Your task to perform on an android device: Open calendar and show me the fourth week of next month Image 0: 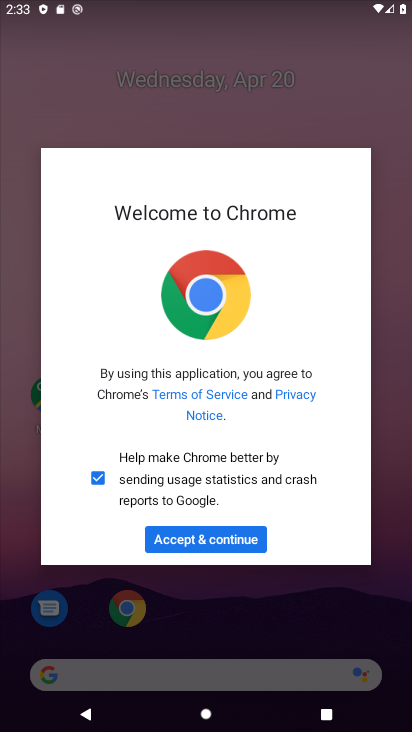
Step 0: press home button
Your task to perform on an android device: Open calendar and show me the fourth week of next month Image 1: 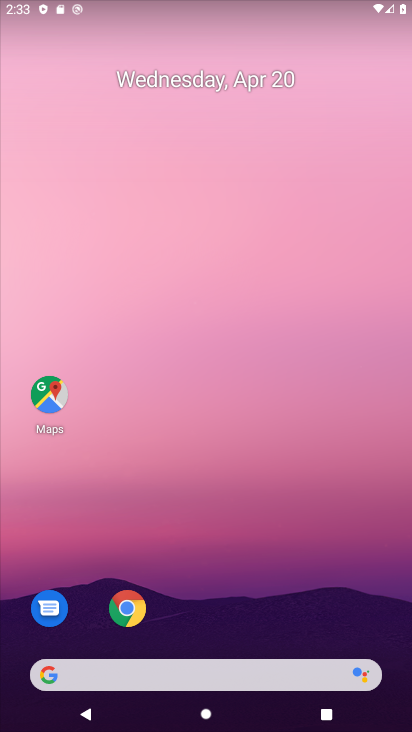
Step 1: drag from (167, 593) to (181, 226)
Your task to perform on an android device: Open calendar and show me the fourth week of next month Image 2: 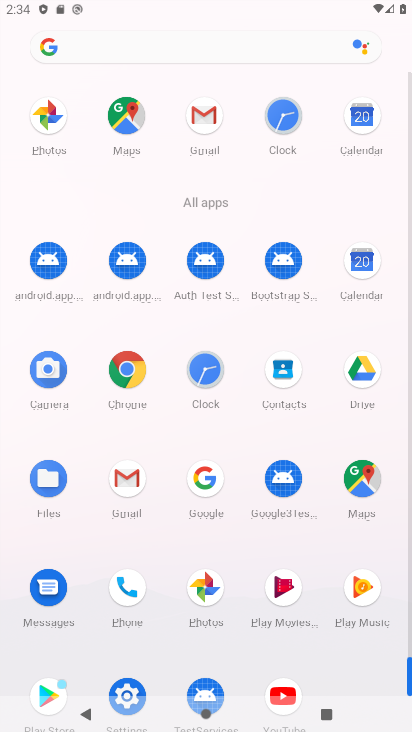
Step 2: click (371, 283)
Your task to perform on an android device: Open calendar and show me the fourth week of next month Image 3: 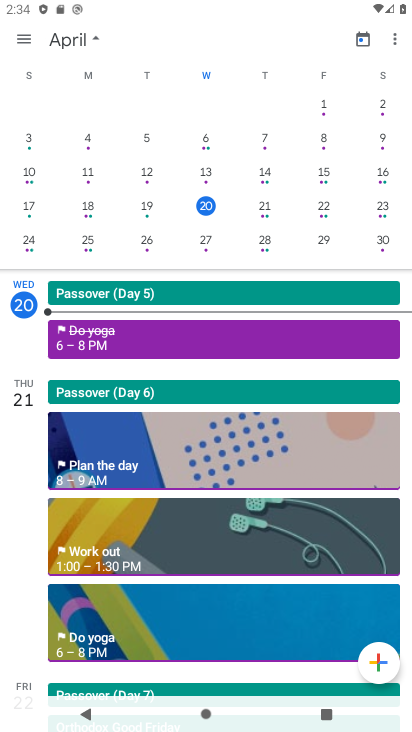
Step 3: drag from (392, 160) to (45, 160)
Your task to perform on an android device: Open calendar and show me the fourth week of next month Image 4: 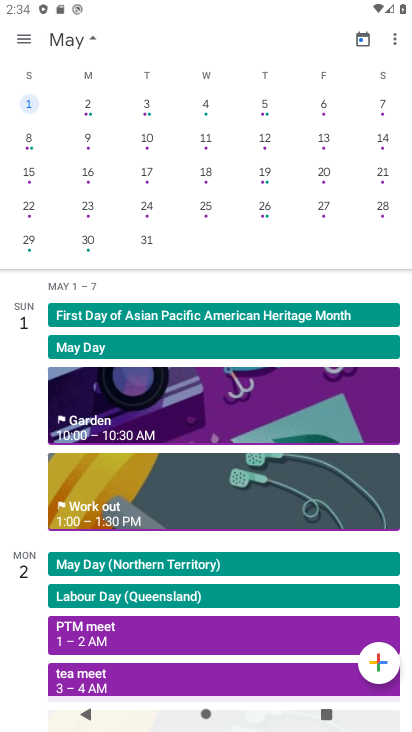
Step 4: click (93, 209)
Your task to perform on an android device: Open calendar and show me the fourth week of next month Image 5: 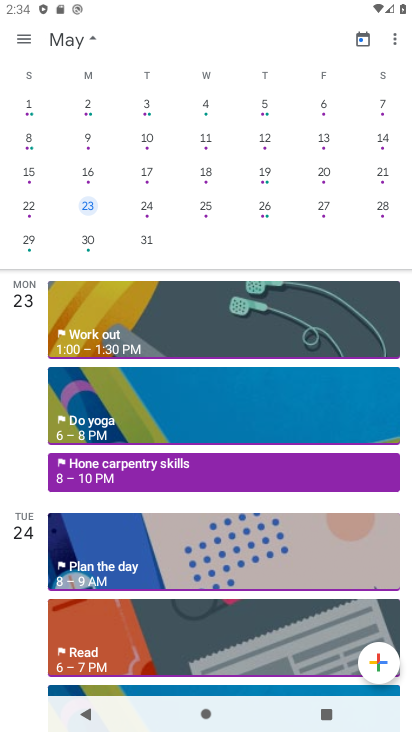
Step 5: click (140, 211)
Your task to perform on an android device: Open calendar and show me the fourth week of next month Image 6: 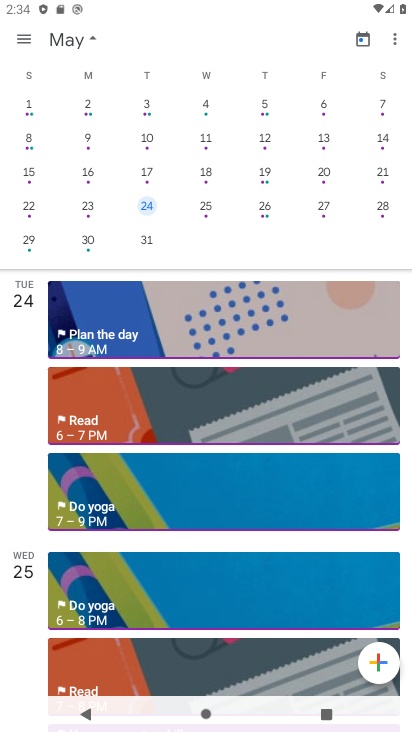
Step 6: click (205, 212)
Your task to perform on an android device: Open calendar and show me the fourth week of next month Image 7: 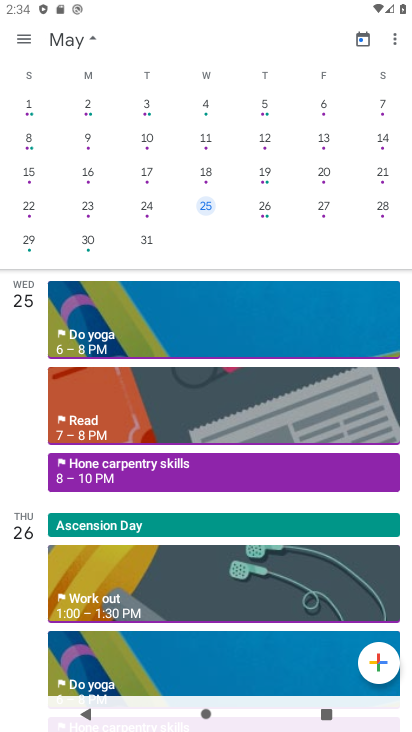
Step 7: click (254, 208)
Your task to perform on an android device: Open calendar and show me the fourth week of next month Image 8: 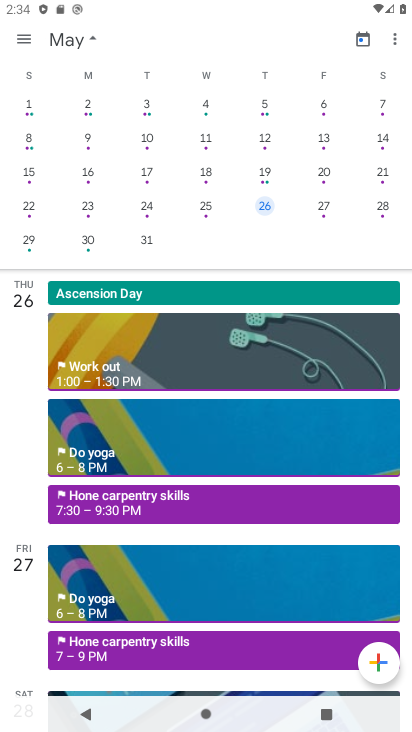
Step 8: click (324, 210)
Your task to perform on an android device: Open calendar and show me the fourth week of next month Image 9: 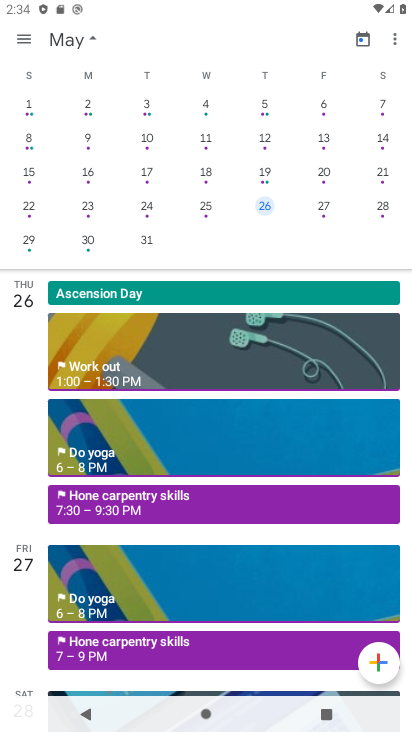
Step 9: click (387, 200)
Your task to perform on an android device: Open calendar and show me the fourth week of next month Image 10: 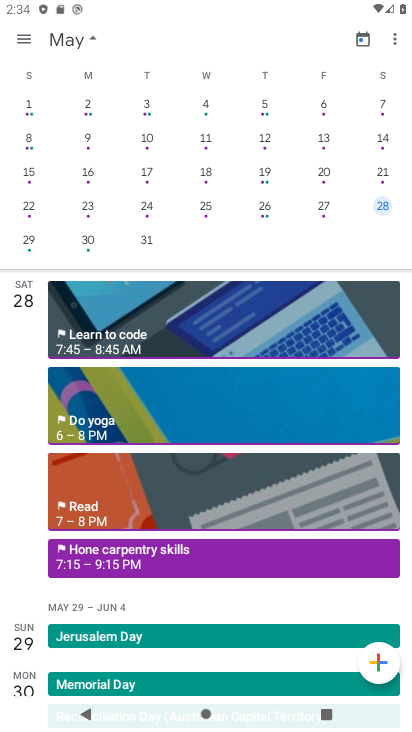
Step 10: click (23, 46)
Your task to perform on an android device: Open calendar and show me the fourth week of next month Image 11: 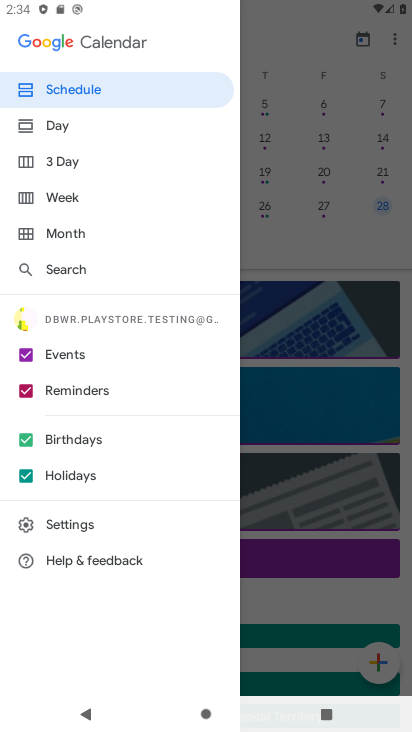
Step 11: click (89, 193)
Your task to perform on an android device: Open calendar and show me the fourth week of next month Image 12: 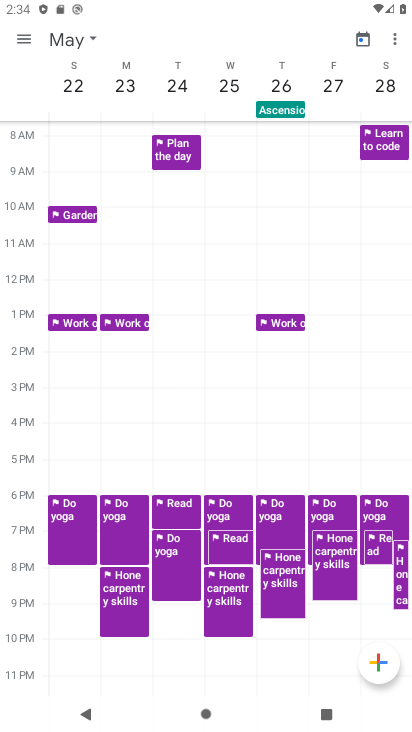
Step 12: task complete